Your task to perform on an android device: show emergency info Image 0: 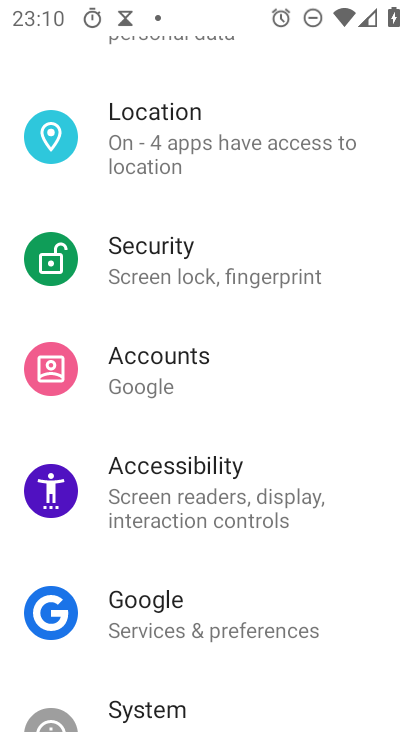
Step 0: drag from (179, 655) to (179, 222)
Your task to perform on an android device: show emergency info Image 1: 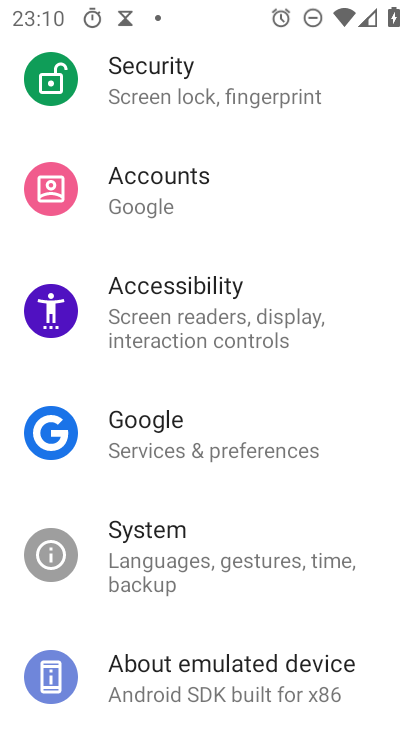
Step 1: drag from (207, 676) to (208, 309)
Your task to perform on an android device: show emergency info Image 2: 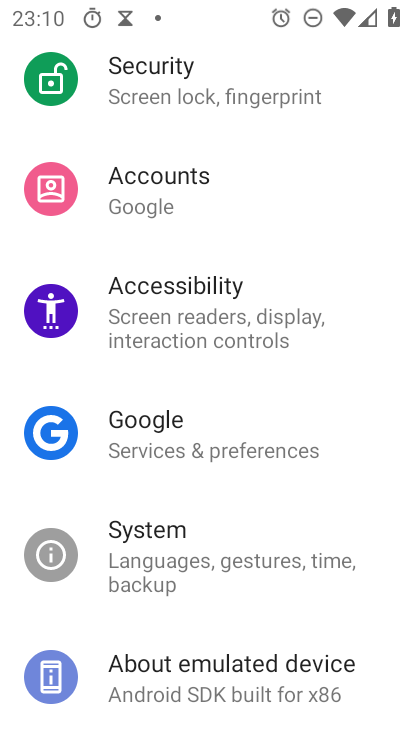
Step 2: click (221, 674)
Your task to perform on an android device: show emergency info Image 3: 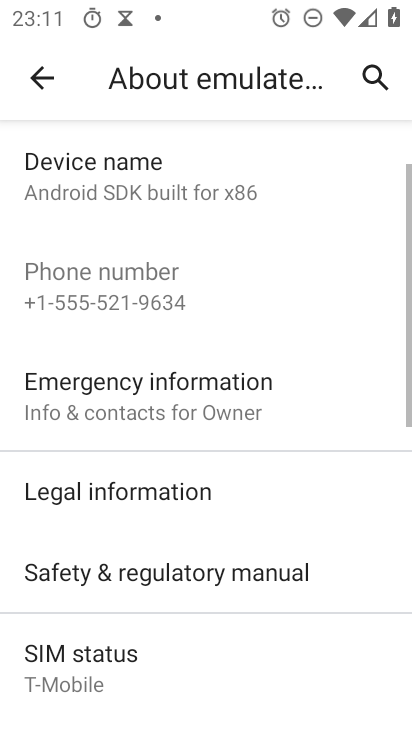
Step 3: click (164, 394)
Your task to perform on an android device: show emergency info Image 4: 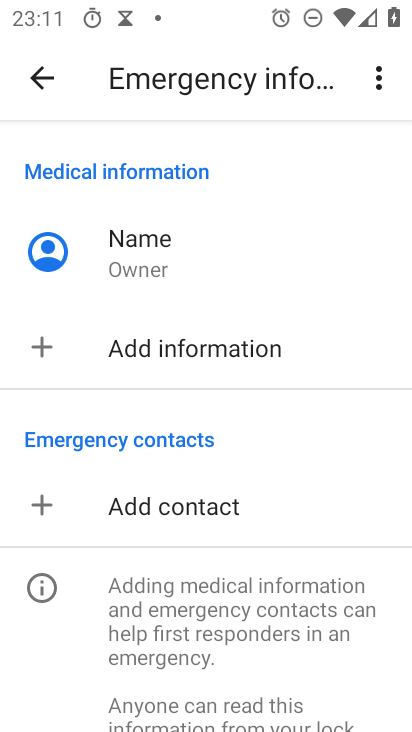
Step 4: task complete